Your task to perform on an android device: toggle notifications settings in the gmail app Image 0: 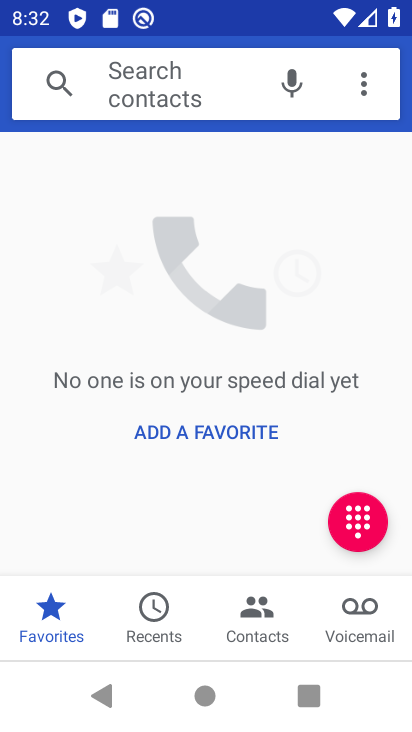
Step 0: press home button
Your task to perform on an android device: toggle notifications settings in the gmail app Image 1: 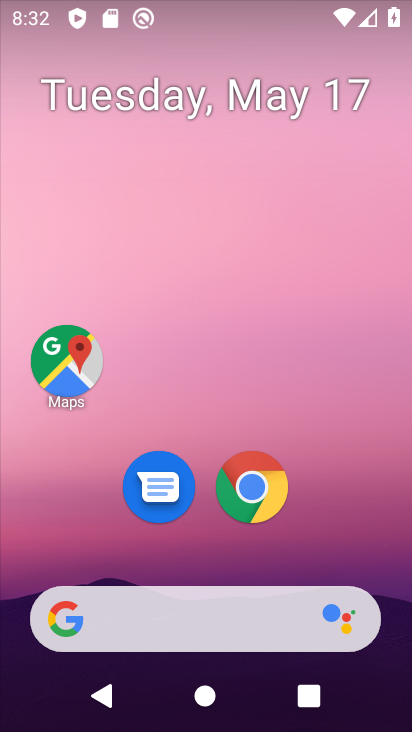
Step 1: drag from (220, 671) to (360, 179)
Your task to perform on an android device: toggle notifications settings in the gmail app Image 2: 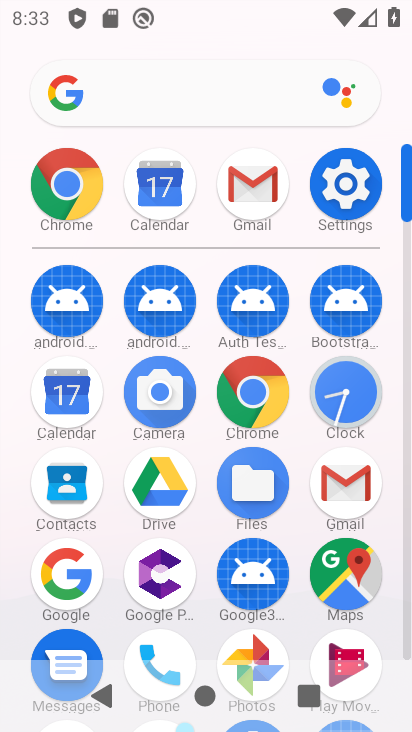
Step 2: click (345, 485)
Your task to perform on an android device: toggle notifications settings in the gmail app Image 3: 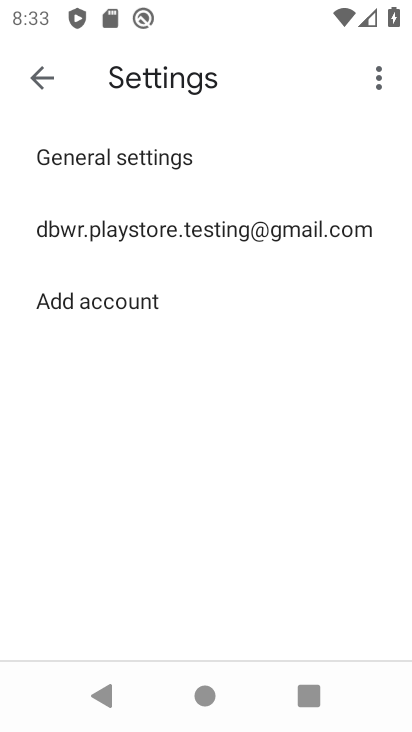
Step 3: click (193, 195)
Your task to perform on an android device: toggle notifications settings in the gmail app Image 4: 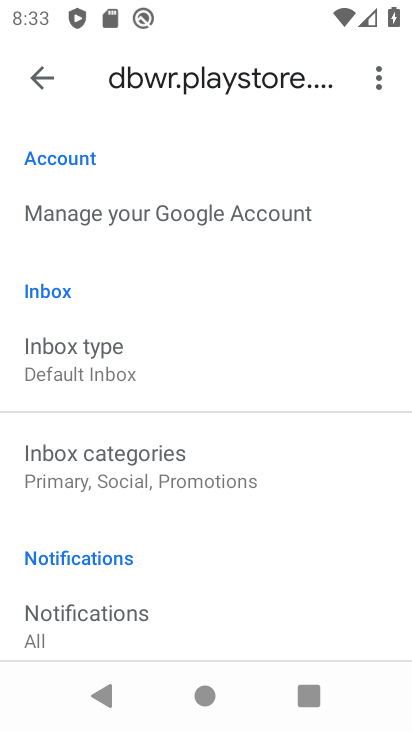
Step 4: click (52, 616)
Your task to perform on an android device: toggle notifications settings in the gmail app Image 5: 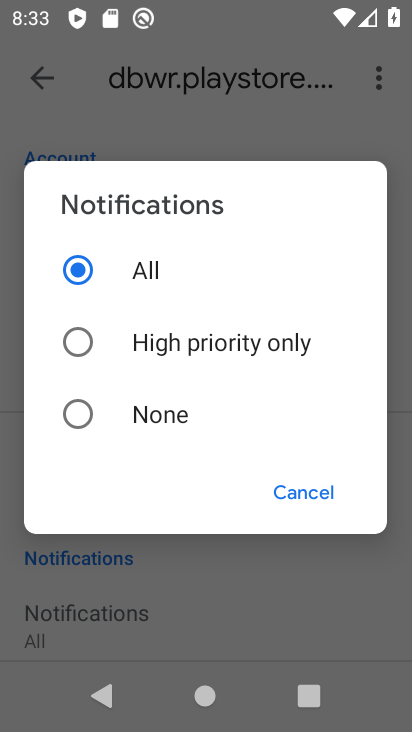
Step 5: task complete